Your task to perform on an android device: toggle priority inbox in the gmail app Image 0: 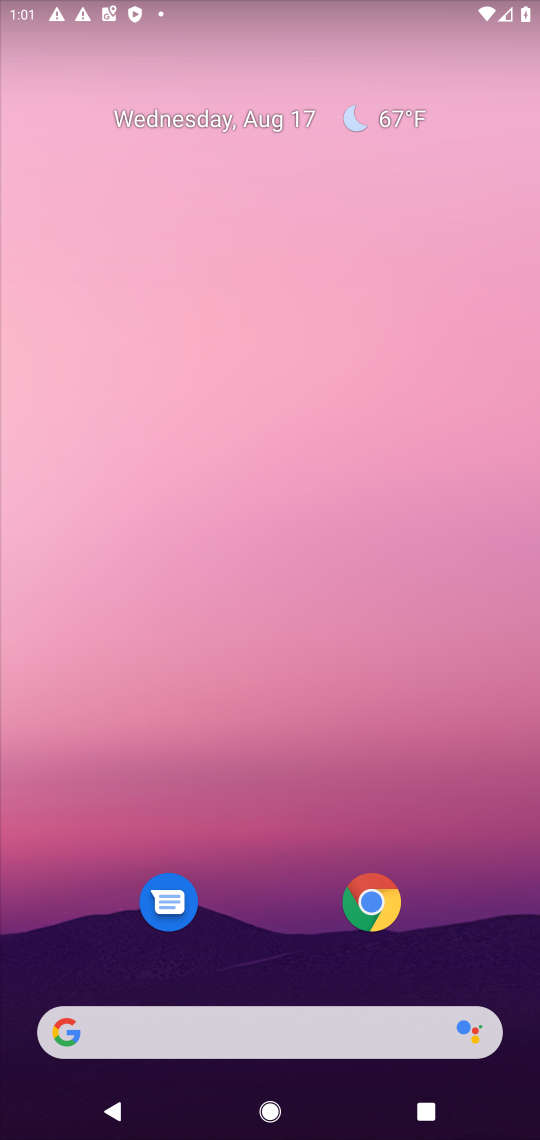
Step 0: drag from (295, 978) to (460, 150)
Your task to perform on an android device: toggle priority inbox in the gmail app Image 1: 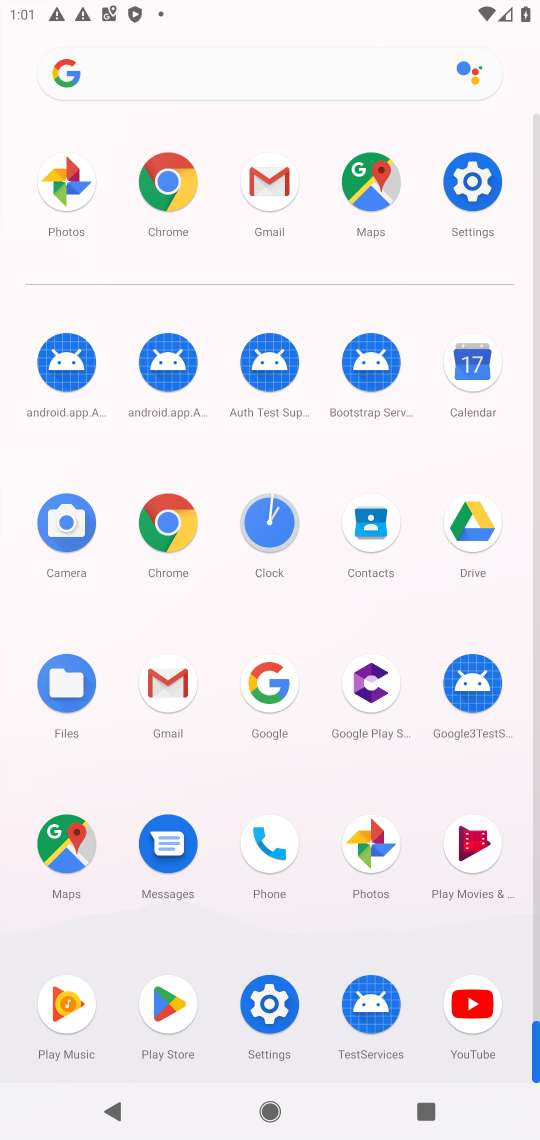
Step 1: click (166, 682)
Your task to perform on an android device: toggle priority inbox in the gmail app Image 2: 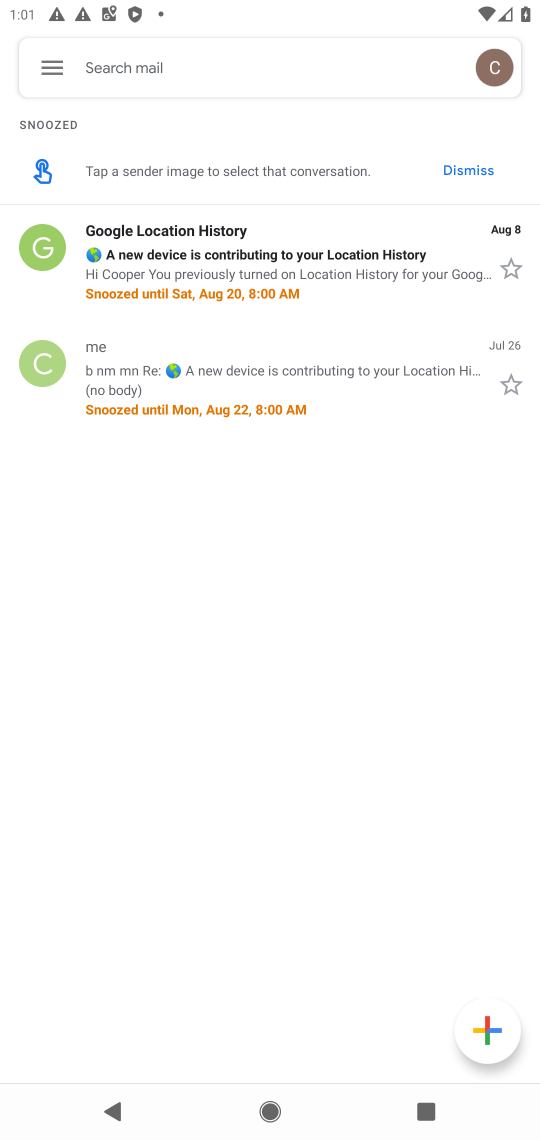
Step 2: click (50, 50)
Your task to perform on an android device: toggle priority inbox in the gmail app Image 3: 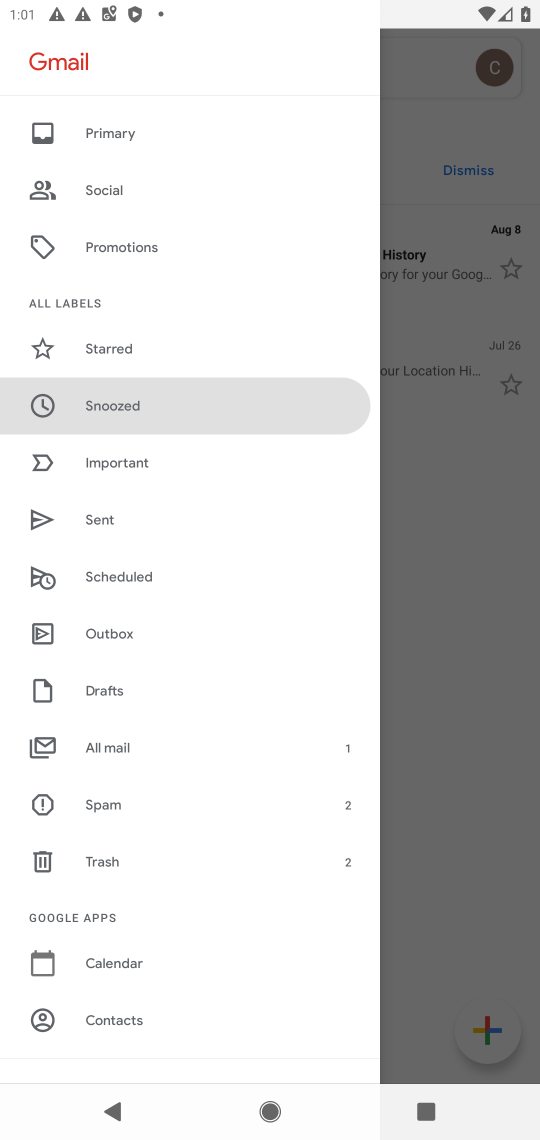
Step 3: drag from (173, 997) to (214, 348)
Your task to perform on an android device: toggle priority inbox in the gmail app Image 4: 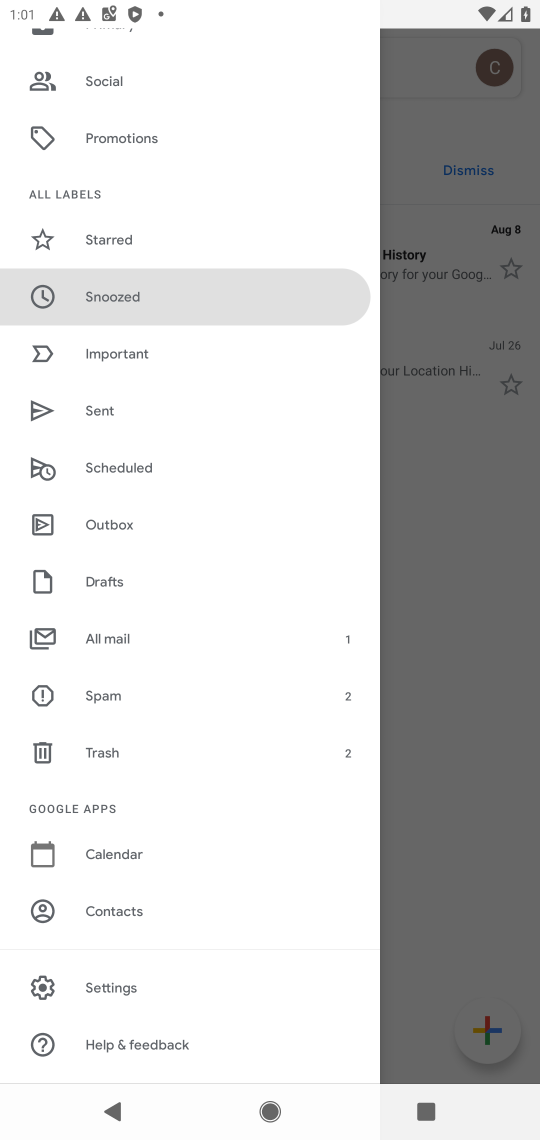
Step 4: click (114, 973)
Your task to perform on an android device: toggle priority inbox in the gmail app Image 5: 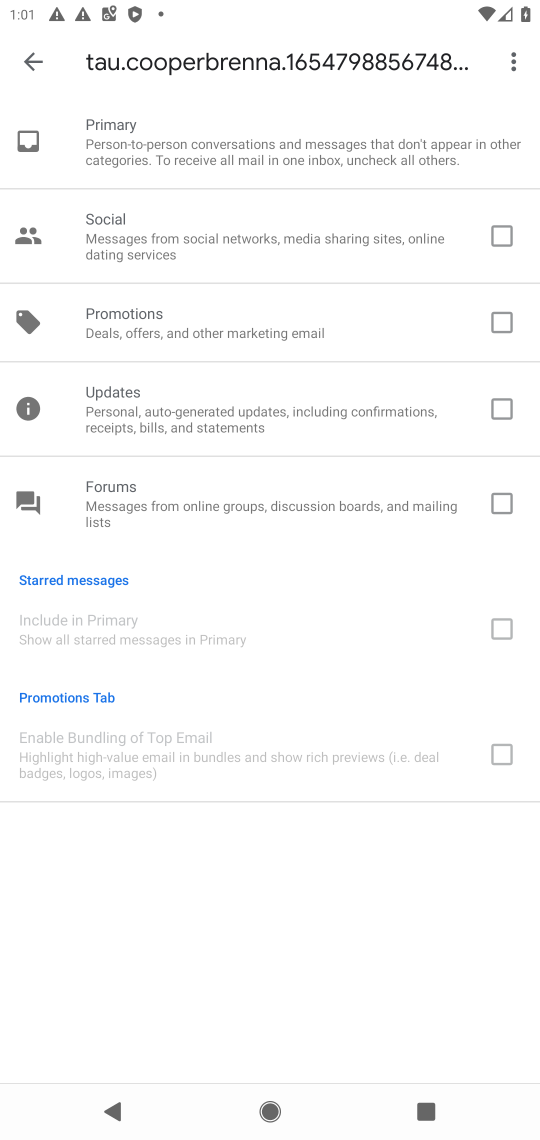
Step 5: click (22, 52)
Your task to perform on an android device: toggle priority inbox in the gmail app Image 6: 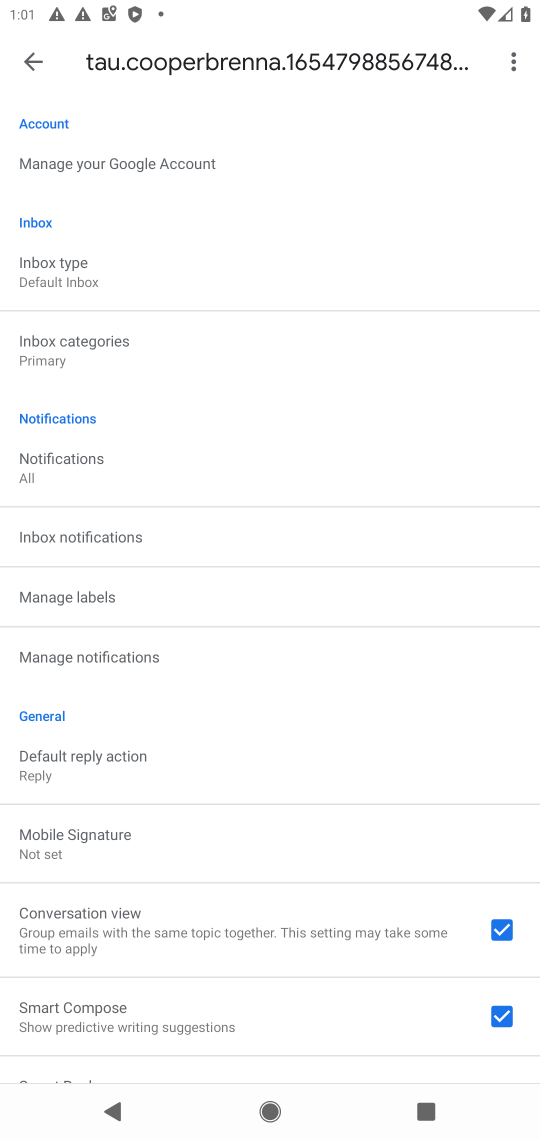
Step 6: click (140, 279)
Your task to perform on an android device: toggle priority inbox in the gmail app Image 7: 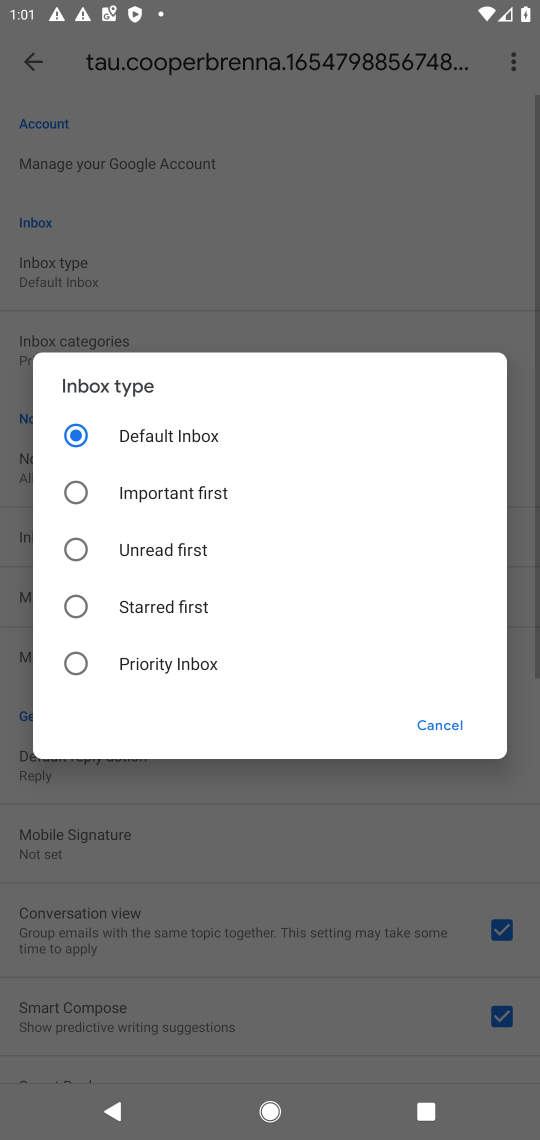
Step 7: click (141, 656)
Your task to perform on an android device: toggle priority inbox in the gmail app Image 8: 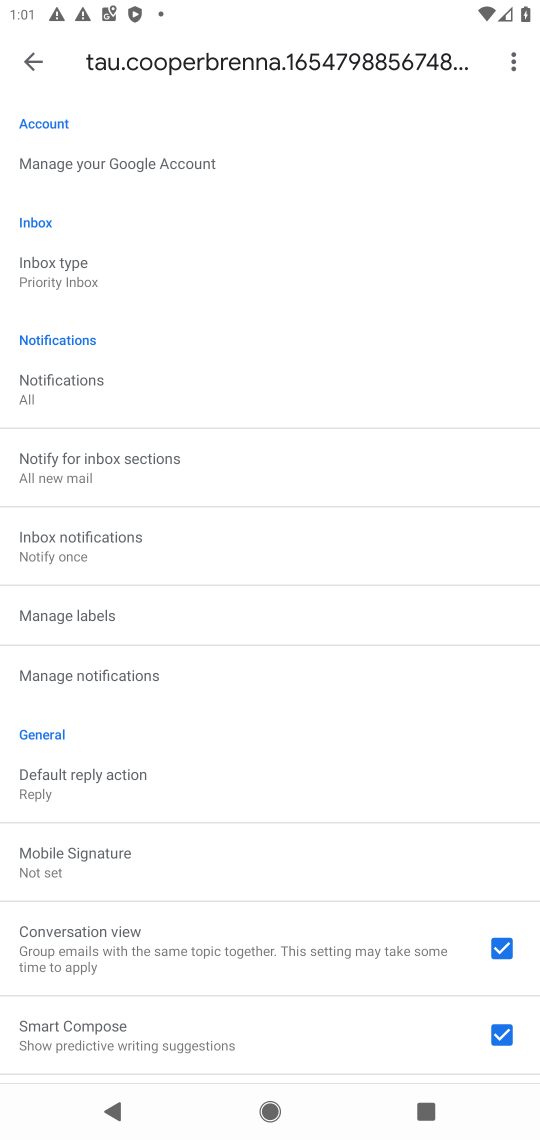
Step 8: task complete